Your task to perform on an android device: Go to CNN.com Image 0: 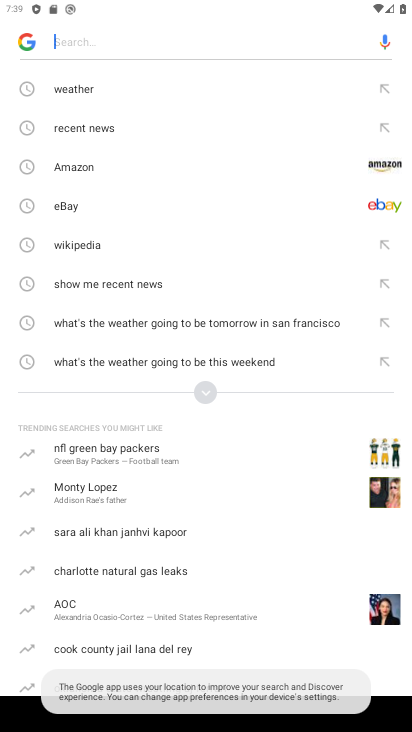
Step 0: press home button
Your task to perform on an android device: Go to CNN.com Image 1: 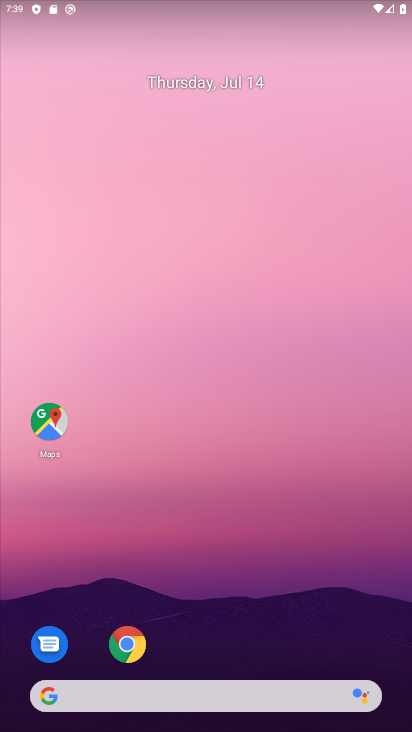
Step 1: click (129, 634)
Your task to perform on an android device: Go to CNN.com Image 2: 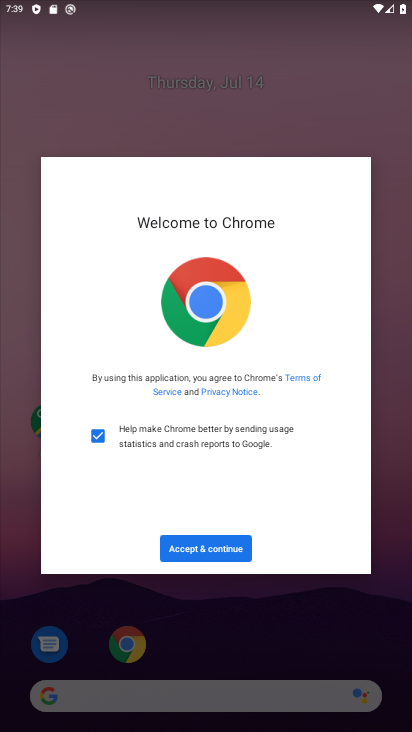
Step 2: click (215, 564)
Your task to perform on an android device: Go to CNN.com Image 3: 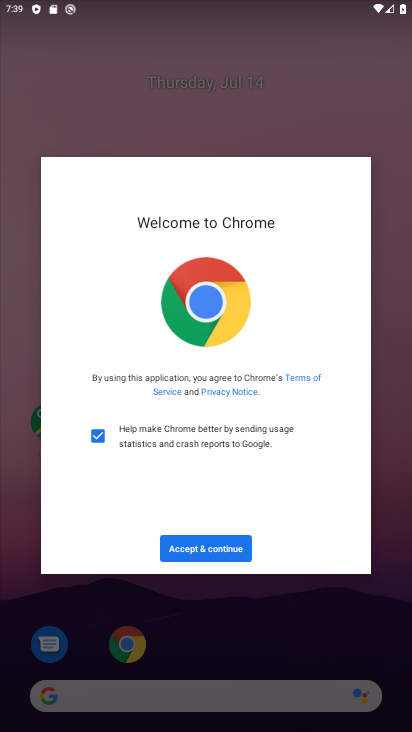
Step 3: click (213, 545)
Your task to perform on an android device: Go to CNN.com Image 4: 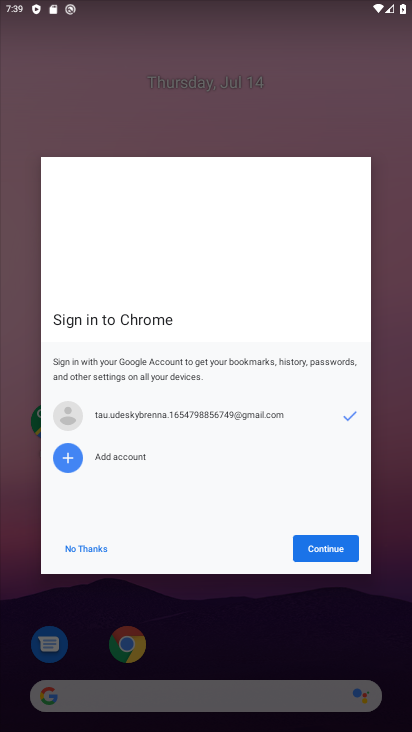
Step 4: click (334, 534)
Your task to perform on an android device: Go to CNN.com Image 5: 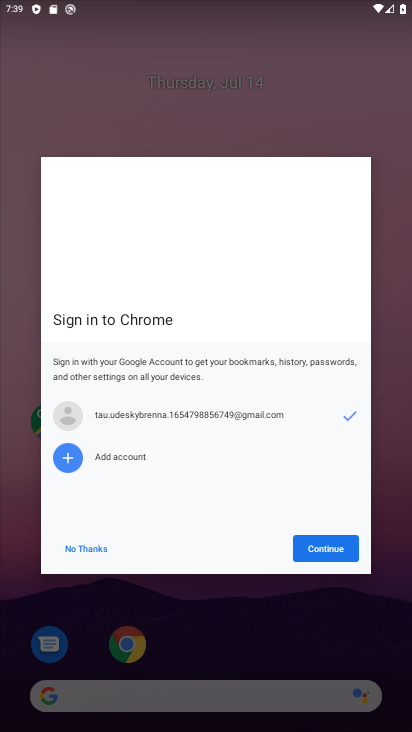
Step 5: click (332, 549)
Your task to perform on an android device: Go to CNN.com Image 6: 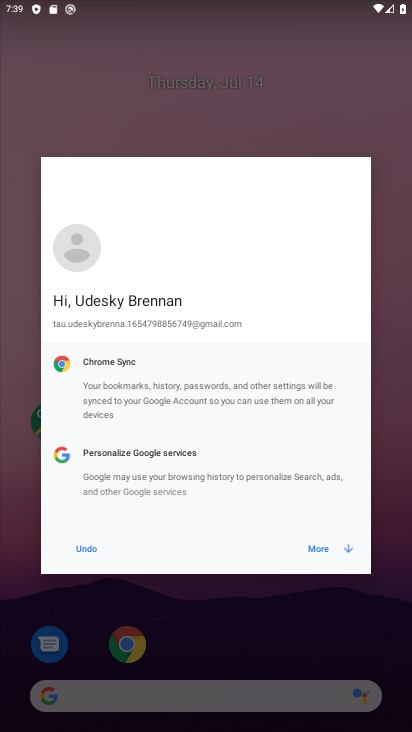
Step 6: click (329, 548)
Your task to perform on an android device: Go to CNN.com Image 7: 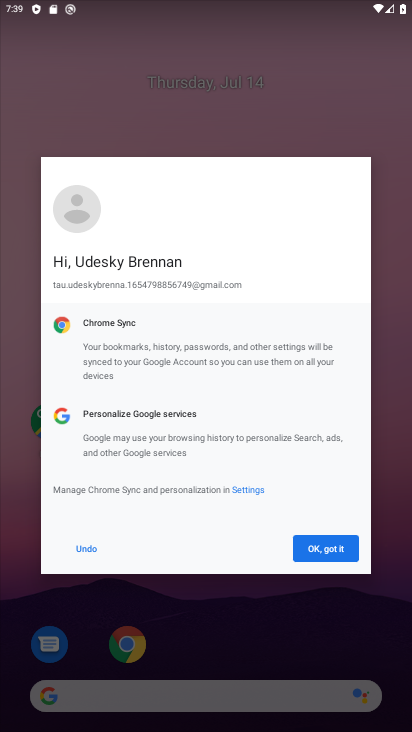
Step 7: click (329, 548)
Your task to perform on an android device: Go to CNN.com Image 8: 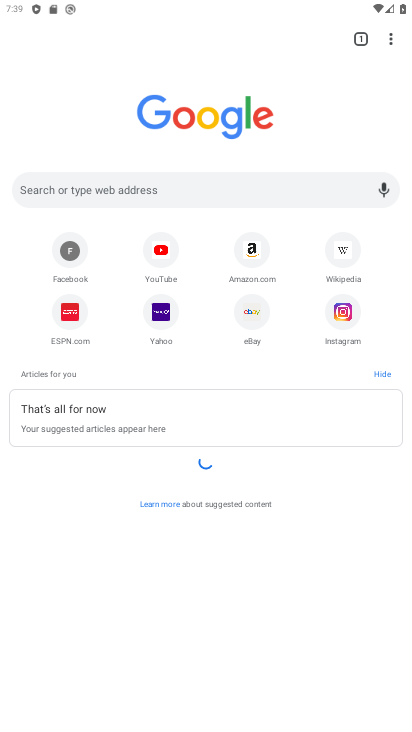
Step 8: click (231, 189)
Your task to perform on an android device: Go to CNN.com Image 9: 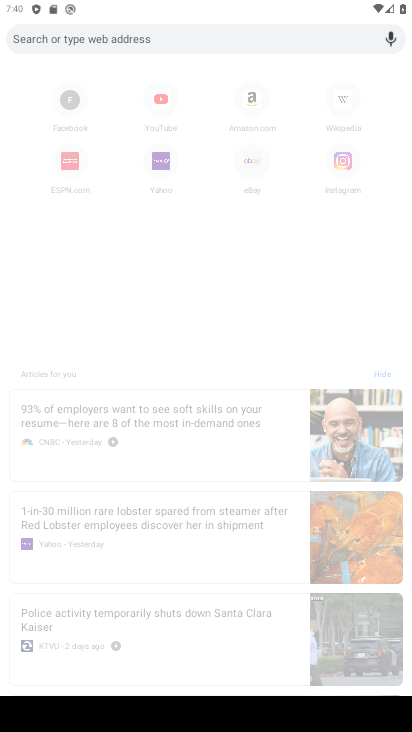
Step 9: type "cnn.com"
Your task to perform on an android device: Go to CNN.com Image 10: 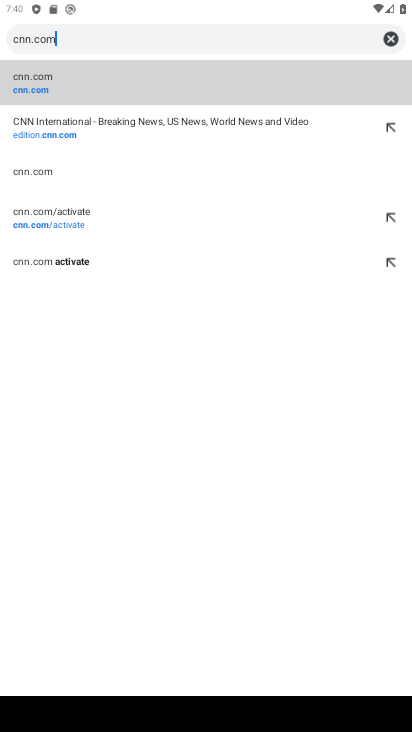
Step 10: type ""
Your task to perform on an android device: Go to CNN.com Image 11: 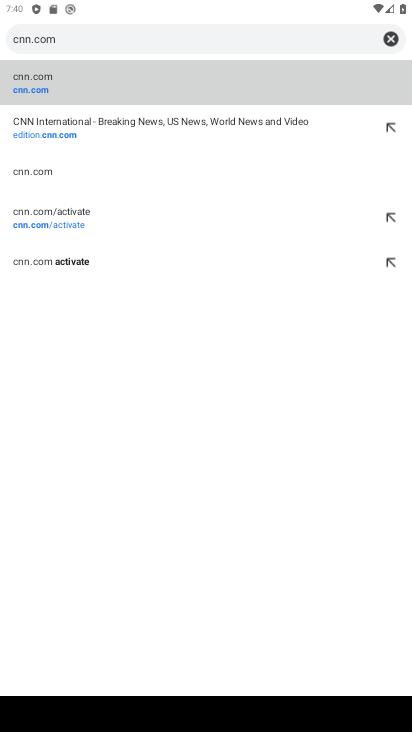
Step 11: click (218, 72)
Your task to perform on an android device: Go to CNN.com Image 12: 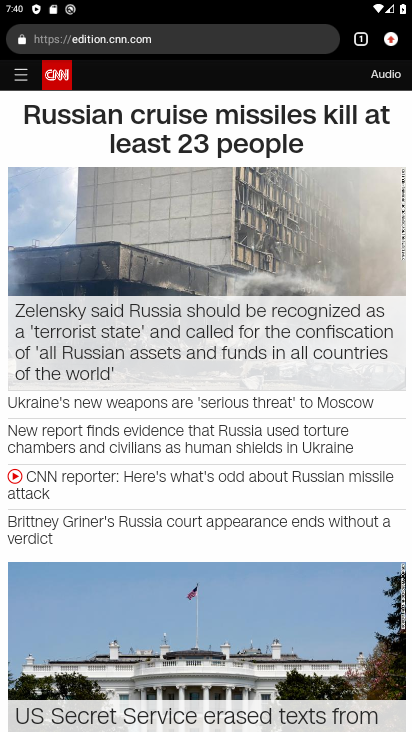
Step 12: task complete